Your task to perform on an android device: turn off data saver in the chrome app Image 0: 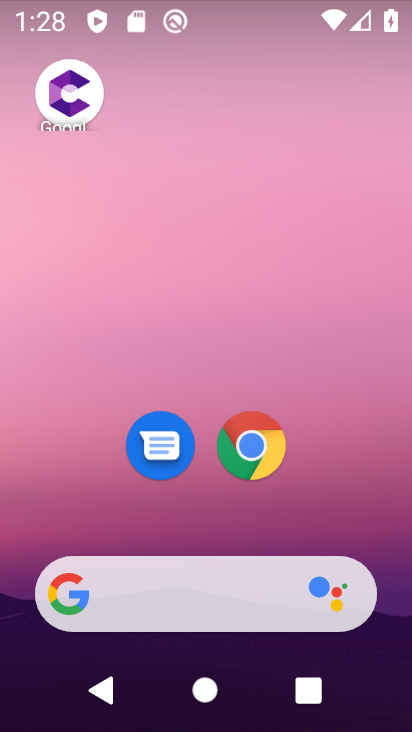
Step 0: drag from (360, 493) to (335, 54)
Your task to perform on an android device: turn off data saver in the chrome app Image 1: 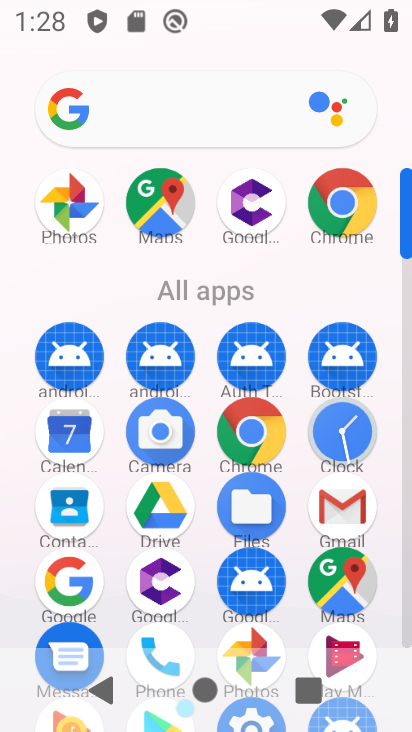
Step 1: click (268, 432)
Your task to perform on an android device: turn off data saver in the chrome app Image 2: 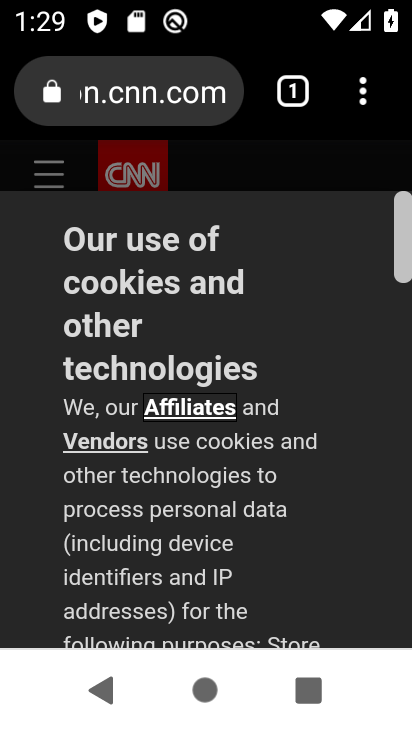
Step 2: task complete